Your task to perform on an android device: remove spam from my inbox in the gmail app Image 0: 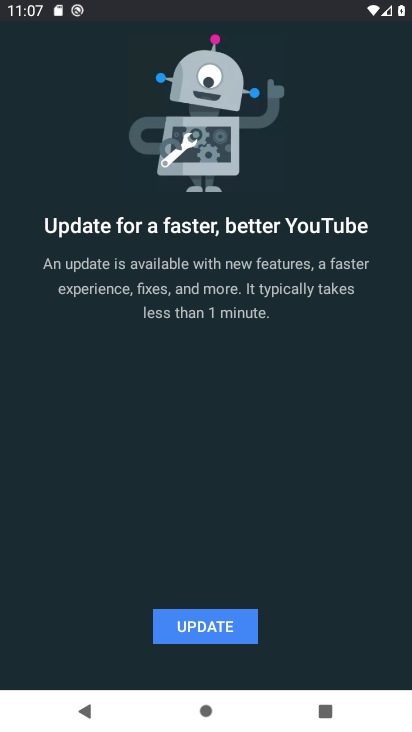
Step 0: press home button
Your task to perform on an android device: remove spam from my inbox in the gmail app Image 1: 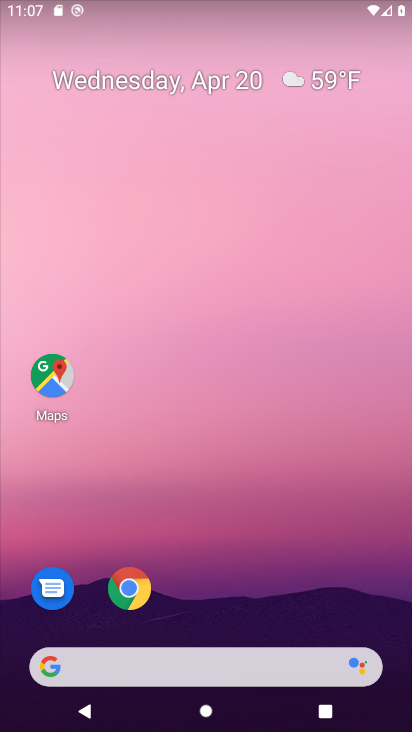
Step 1: drag from (321, 602) to (231, 173)
Your task to perform on an android device: remove spam from my inbox in the gmail app Image 2: 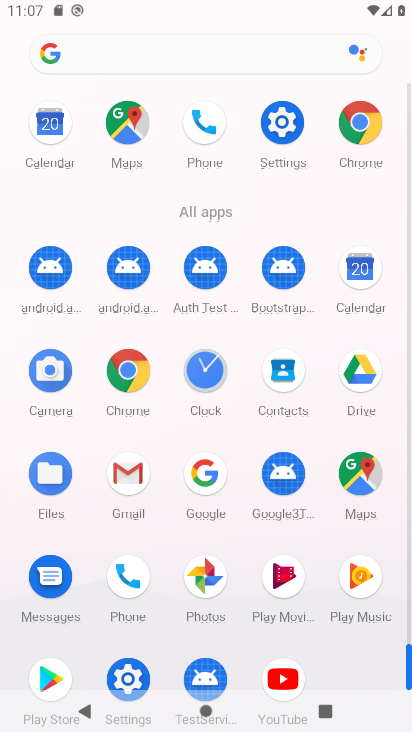
Step 2: click (123, 467)
Your task to perform on an android device: remove spam from my inbox in the gmail app Image 3: 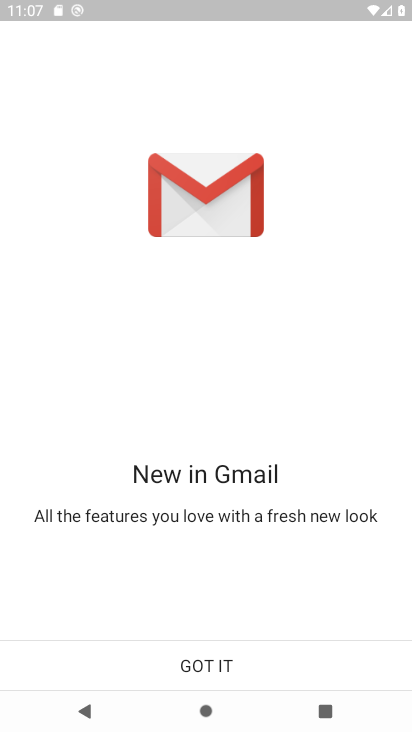
Step 3: click (202, 673)
Your task to perform on an android device: remove spam from my inbox in the gmail app Image 4: 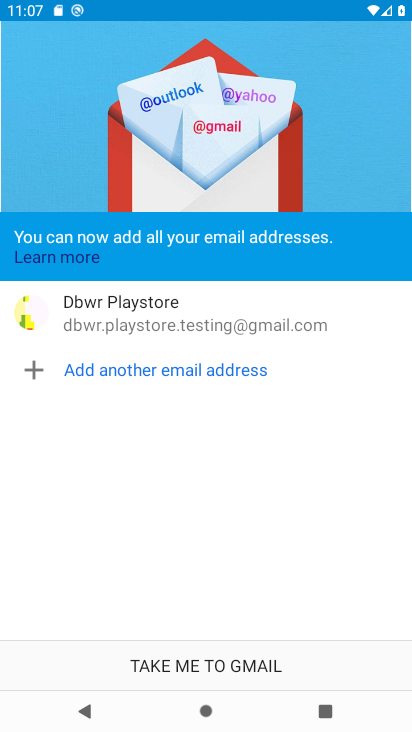
Step 4: click (208, 666)
Your task to perform on an android device: remove spam from my inbox in the gmail app Image 5: 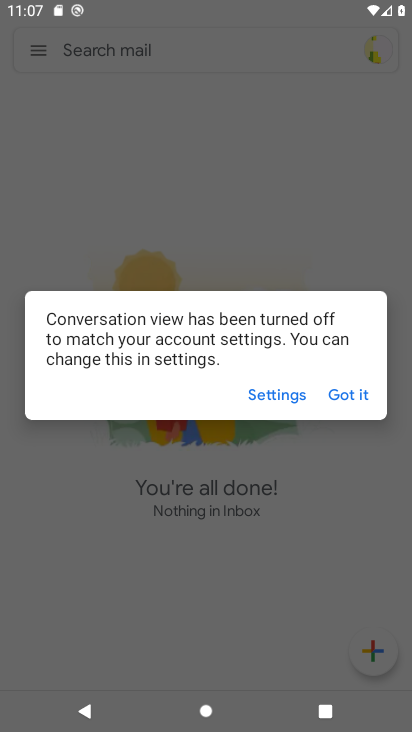
Step 5: click (344, 397)
Your task to perform on an android device: remove spam from my inbox in the gmail app Image 6: 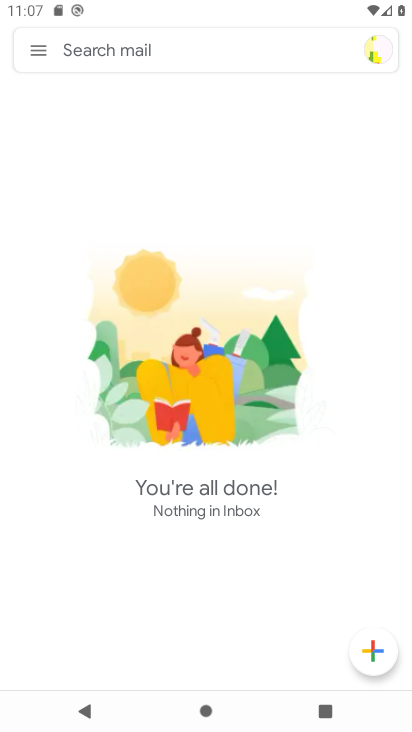
Step 6: click (31, 49)
Your task to perform on an android device: remove spam from my inbox in the gmail app Image 7: 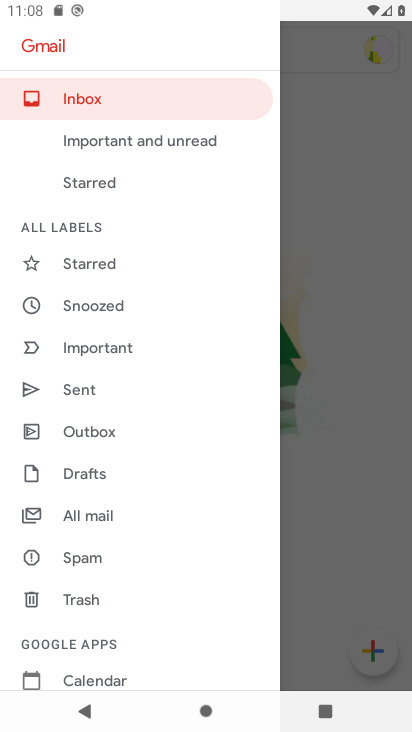
Step 7: click (79, 559)
Your task to perform on an android device: remove spam from my inbox in the gmail app Image 8: 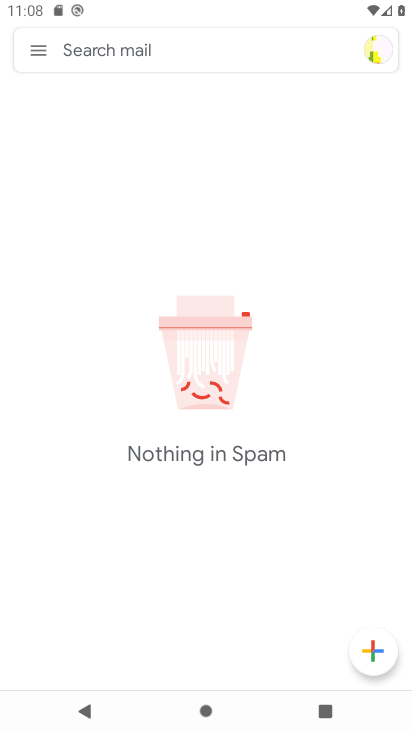
Step 8: task complete